Your task to perform on an android device: open app "Microsoft Outlook" Image 0: 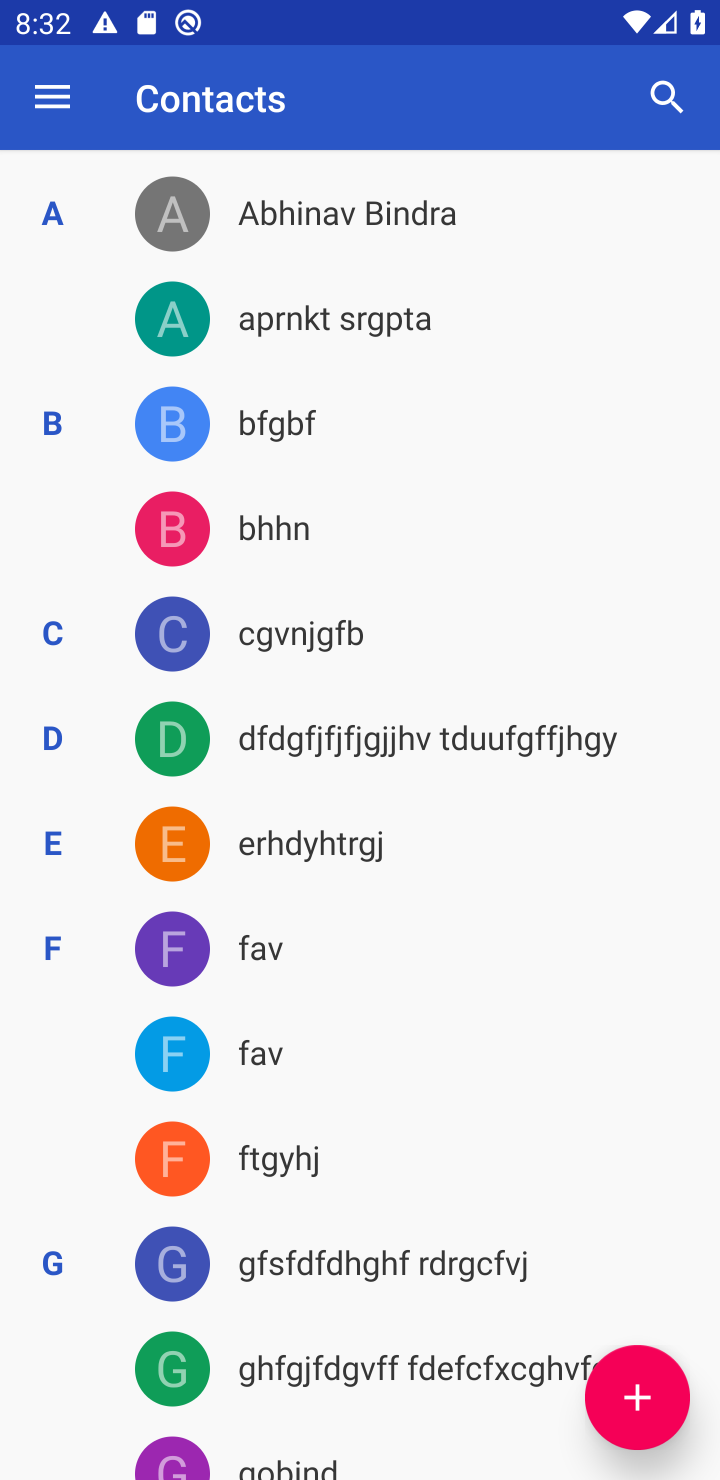
Step 0: press home button
Your task to perform on an android device: open app "Microsoft Outlook" Image 1: 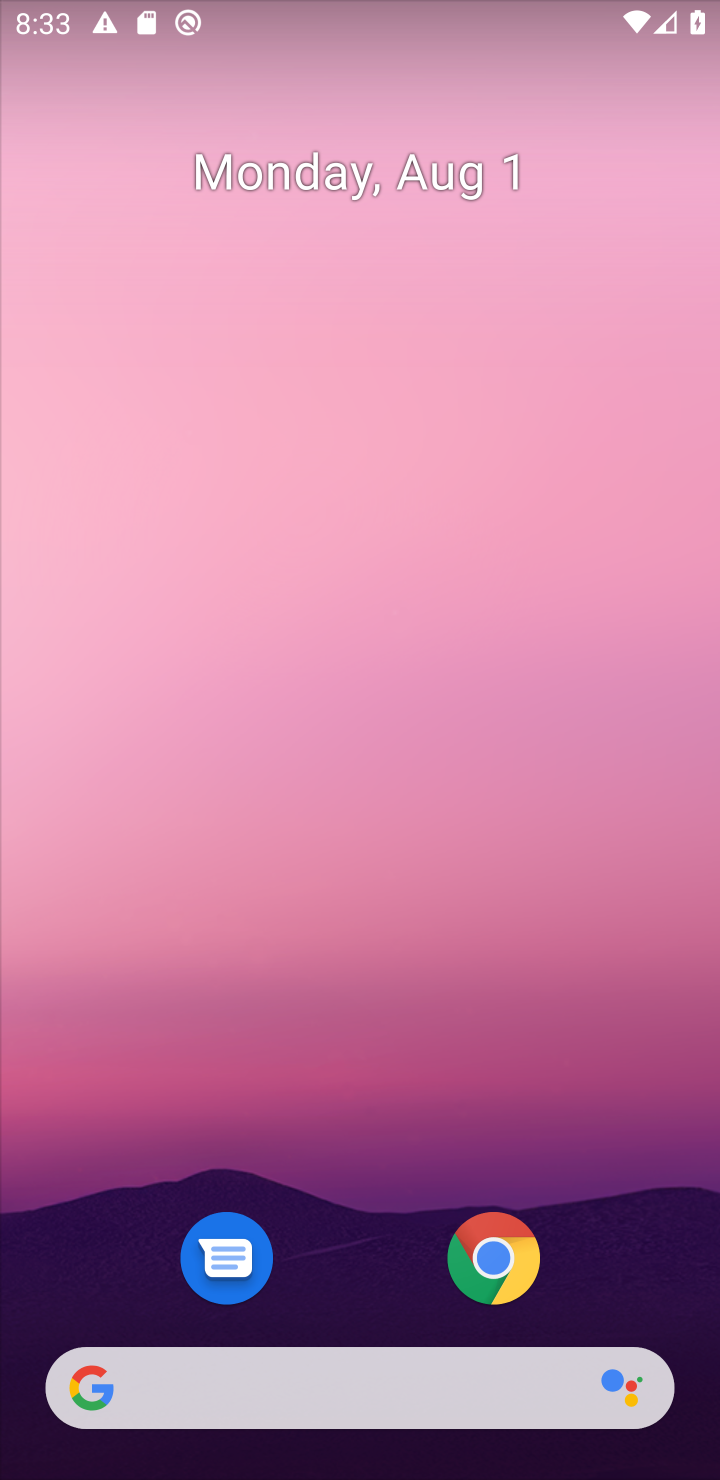
Step 1: drag from (338, 1245) to (483, 72)
Your task to perform on an android device: open app "Microsoft Outlook" Image 2: 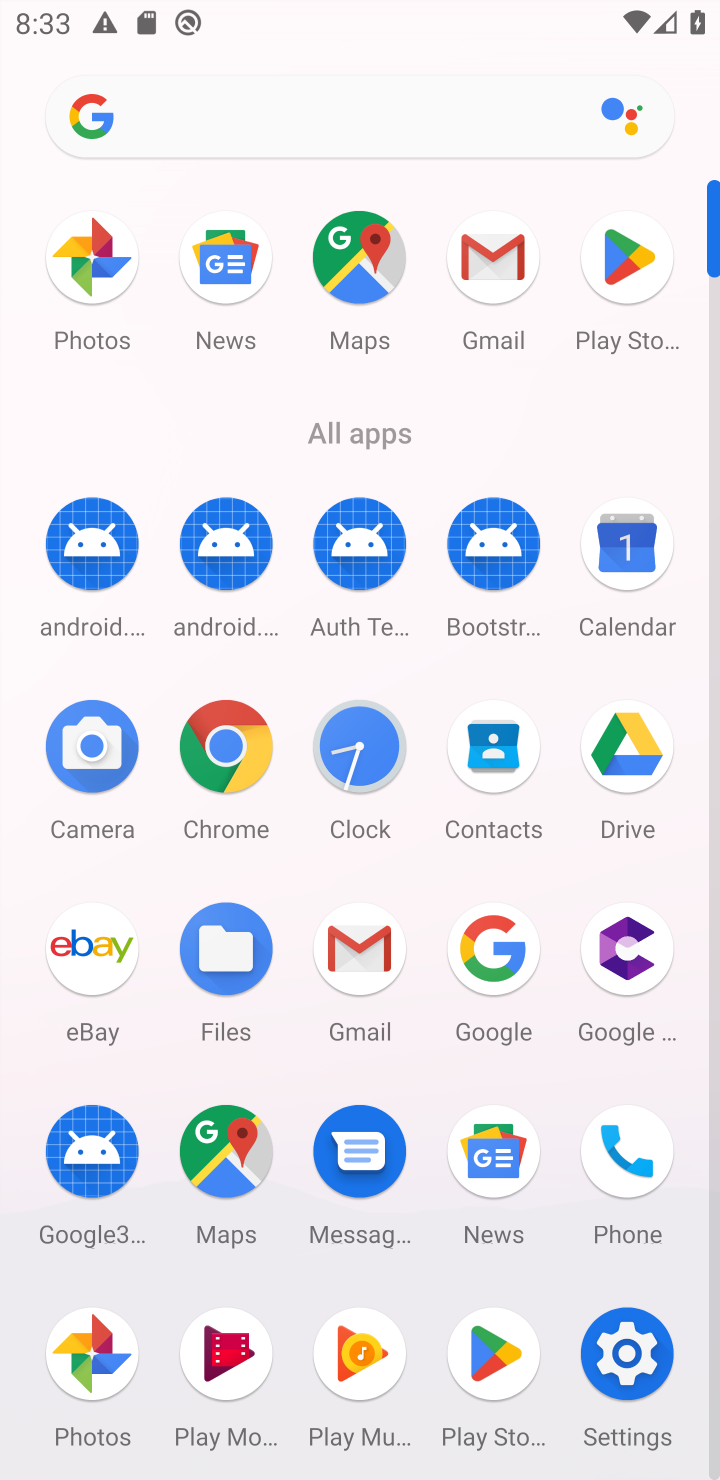
Step 2: click (495, 1357)
Your task to perform on an android device: open app "Microsoft Outlook" Image 3: 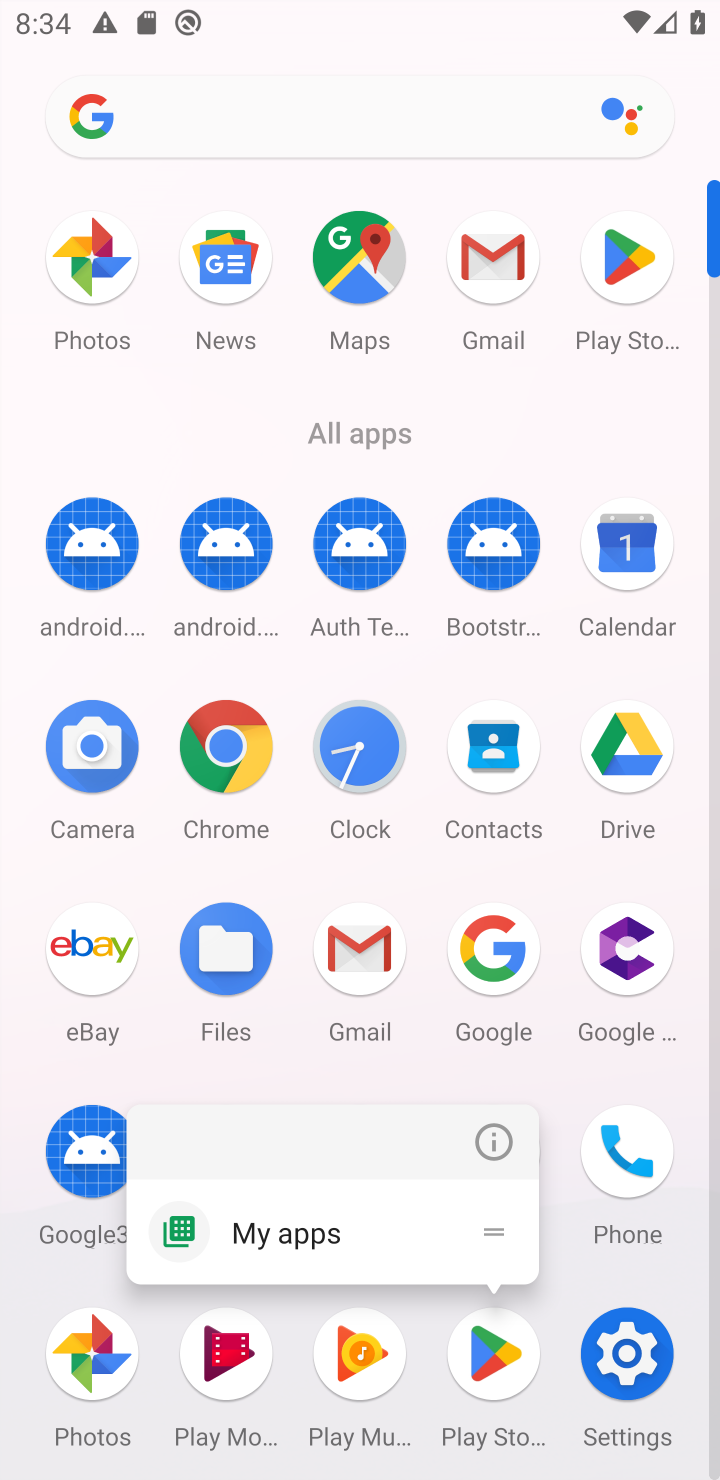
Step 3: click (641, 261)
Your task to perform on an android device: open app "Microsoft Outlook" Image 4: 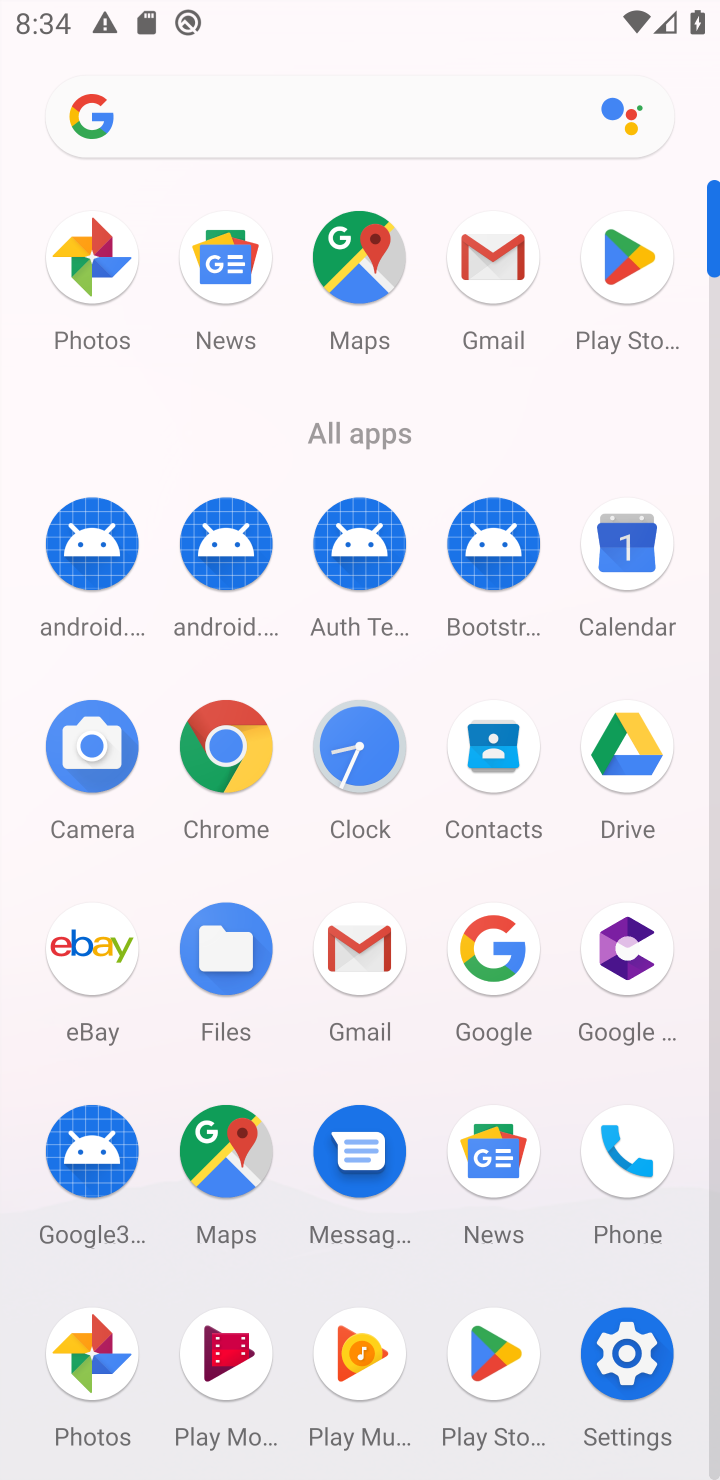
Step 4: click (641, 261)
Your task to perform on an android device: open app "Microsoft Outlook" Image 5: 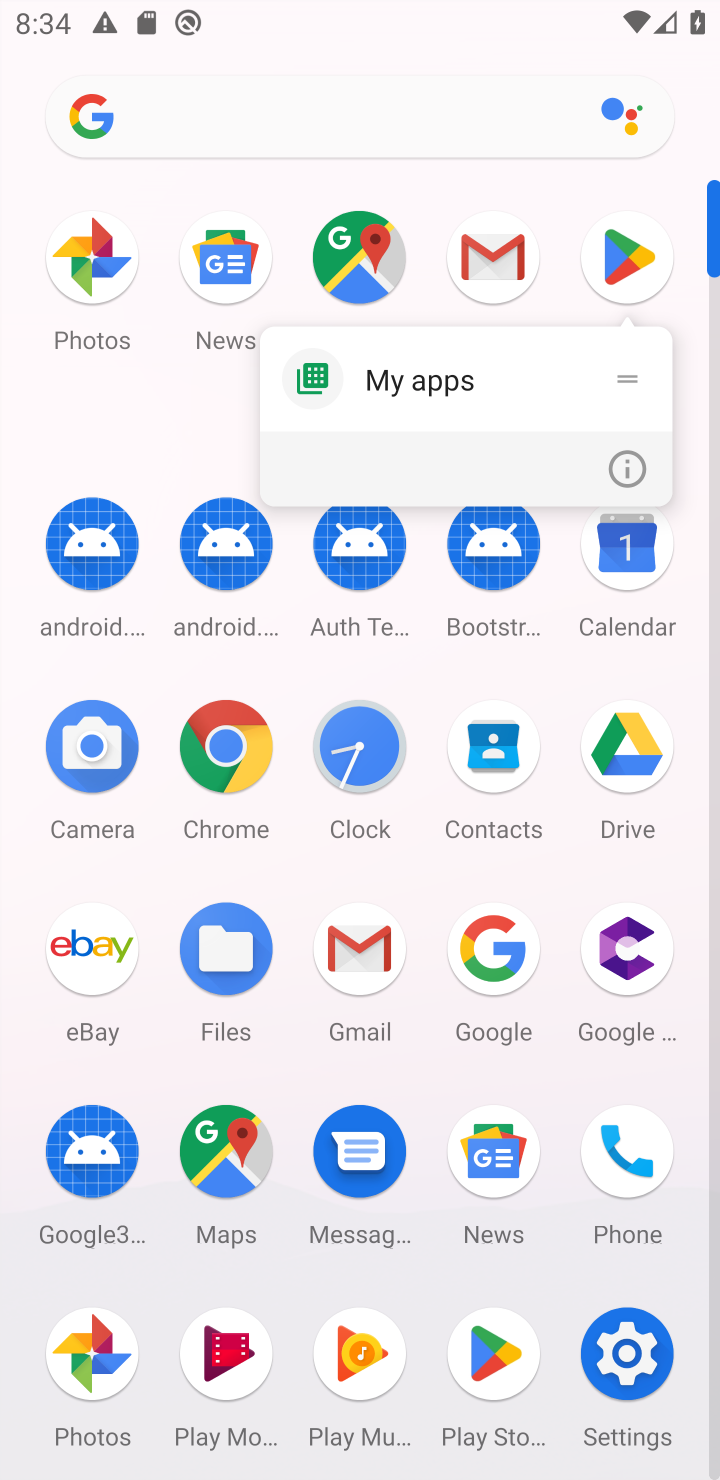
Step 5: click (631, 244)
Your task to perform on an android device: open app "Microsoft Outlook" Image 6: 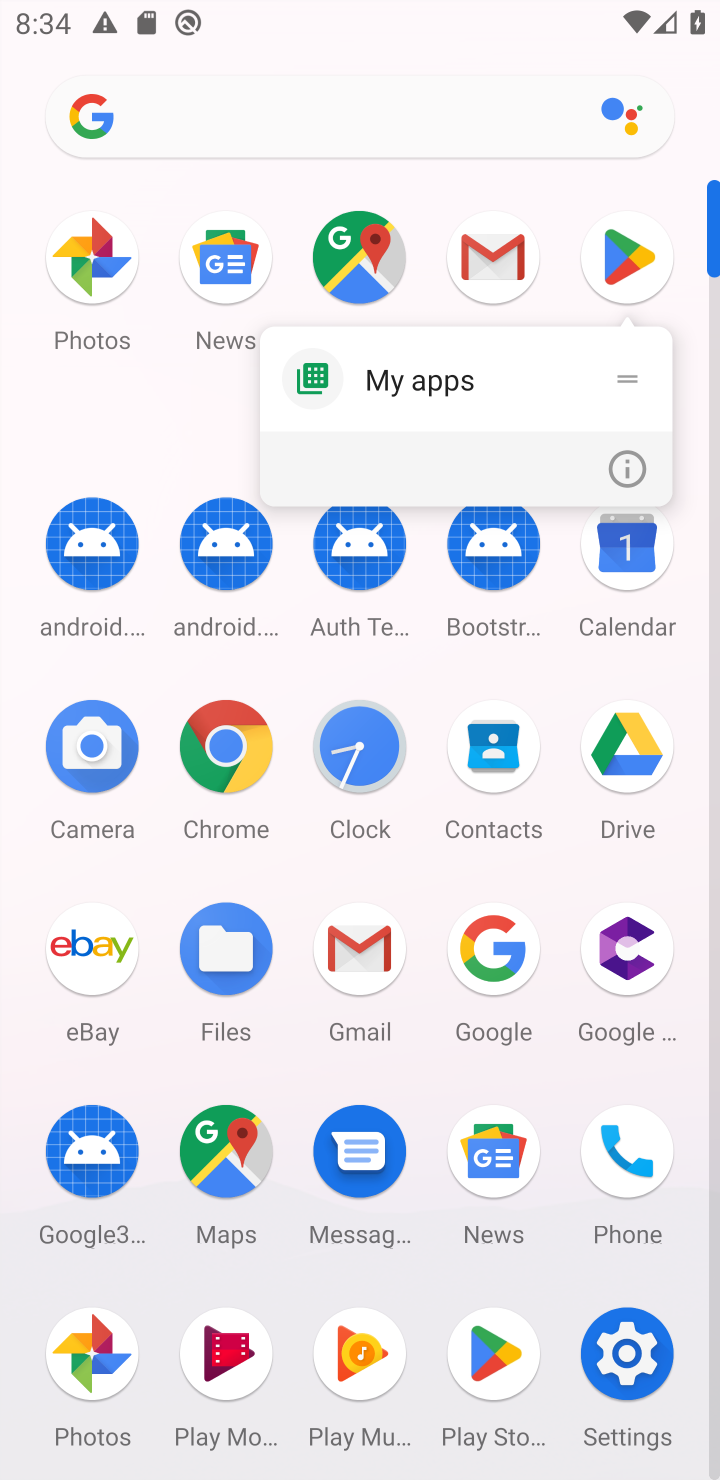
Step 6: click (631, 261)
Your task to perform on an android device: open app "Microsoft Outlook" Image 7: 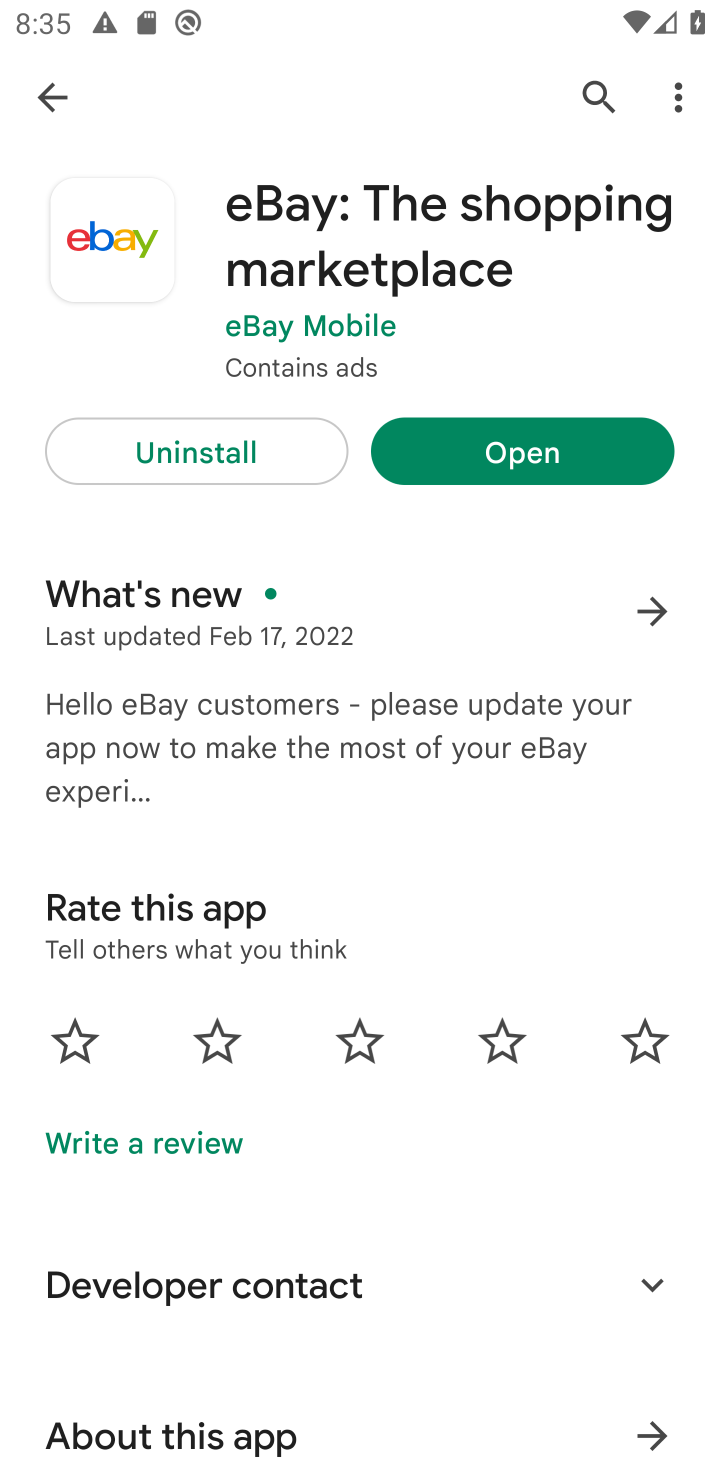
Step 7: click (34, 97)
Your task to perform on an android device: open app "Microsoft Outlook" Image 8: 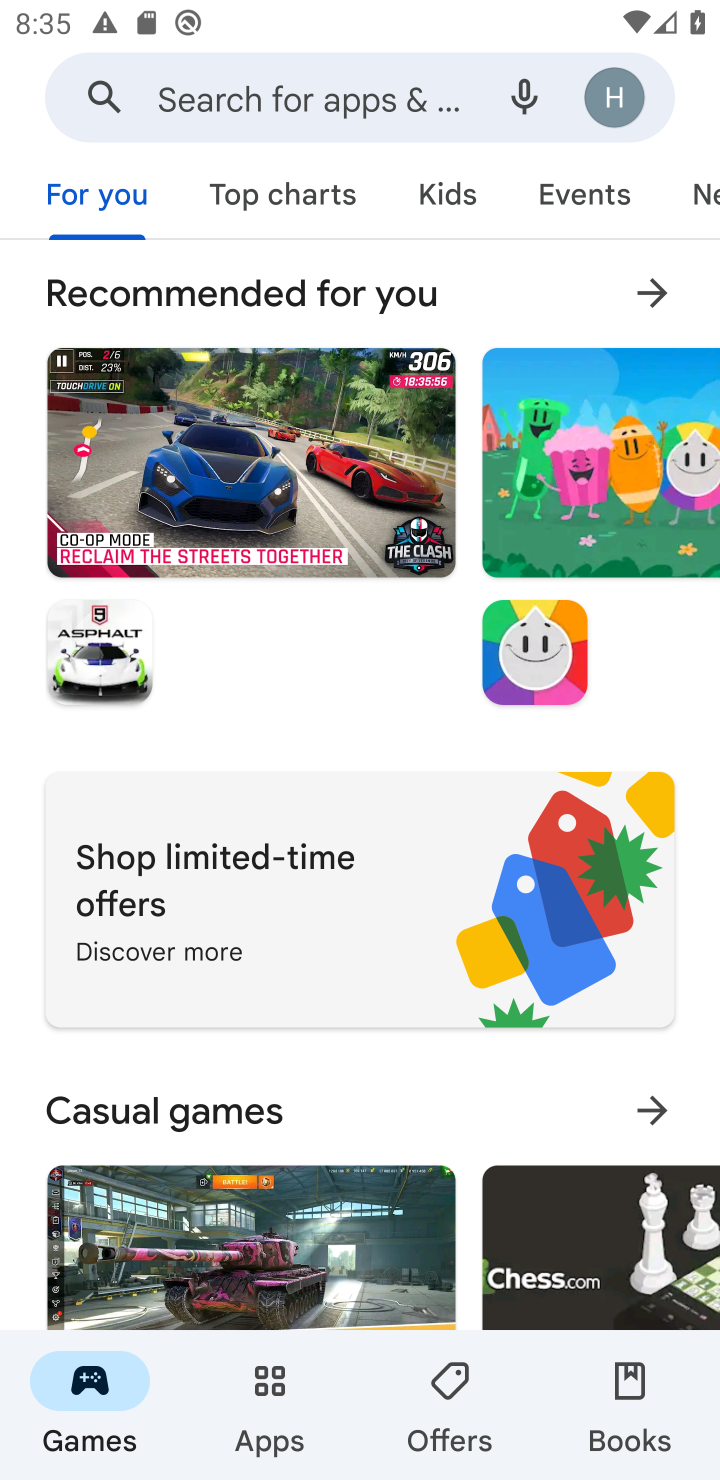
Step 8: click (245, 98)
Your task to perform on an android device: open app "Microsoft Outlook" Image 9: 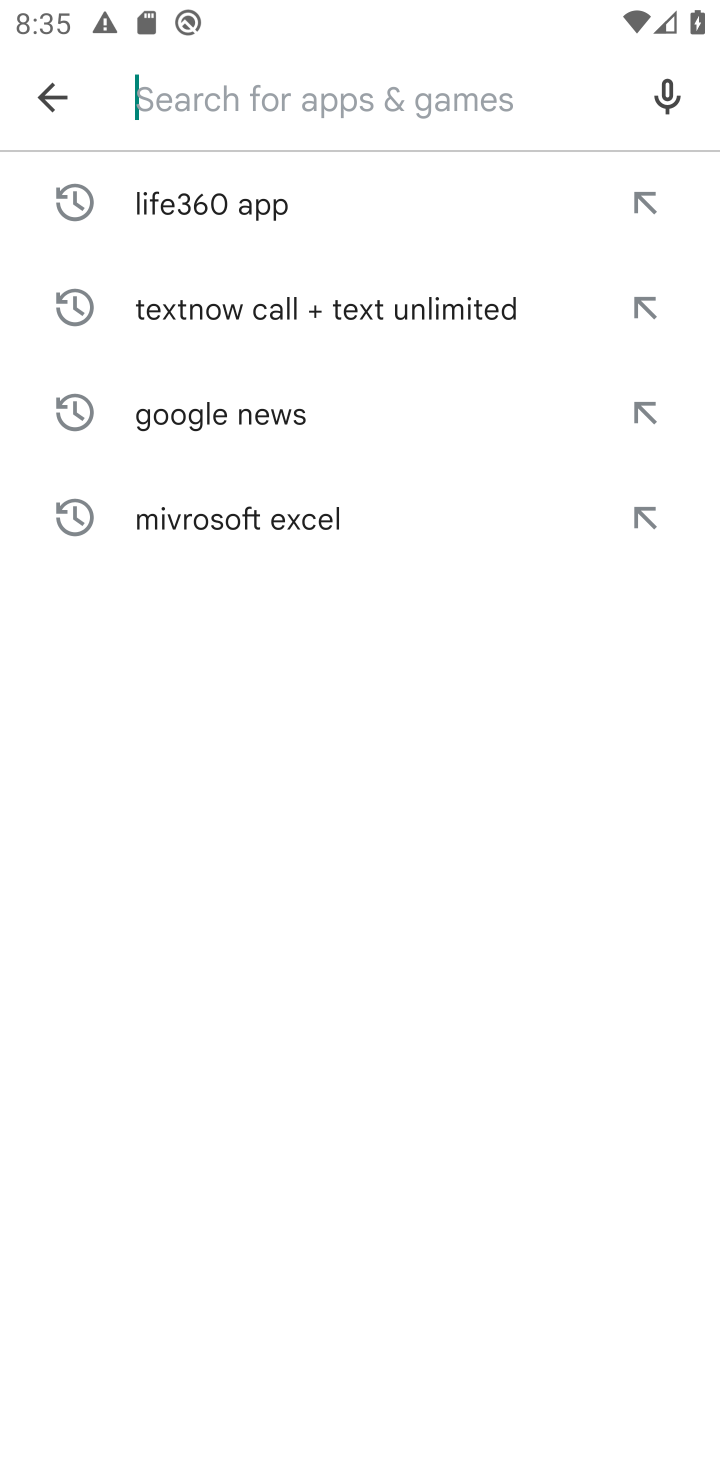
Step 9: click (245, 98)
Your task to perform on an android device: open app "Microsoft Outlook" Image 10: 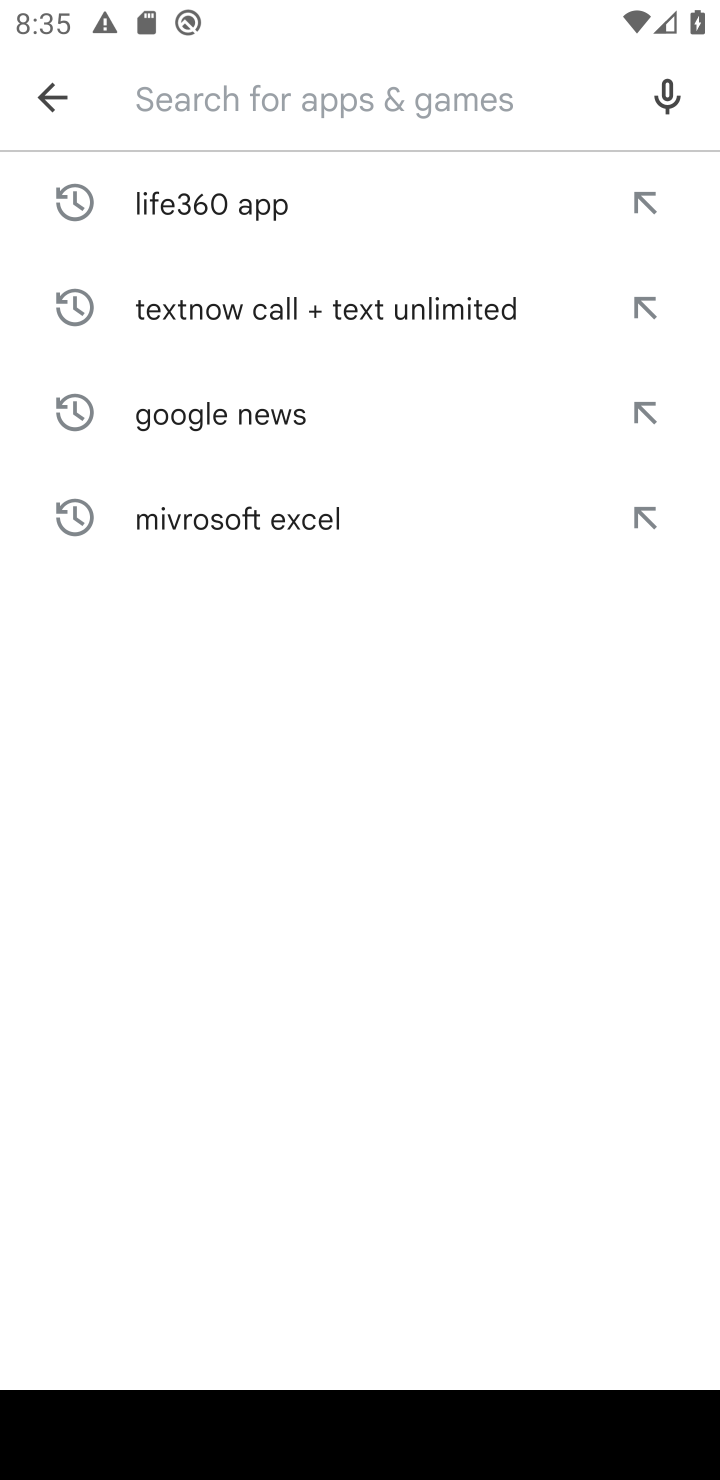
Step 10: type ""Microsoft Outlook""
Your task to perform on an android device: open app "Microsoft Outlook" Image 11: 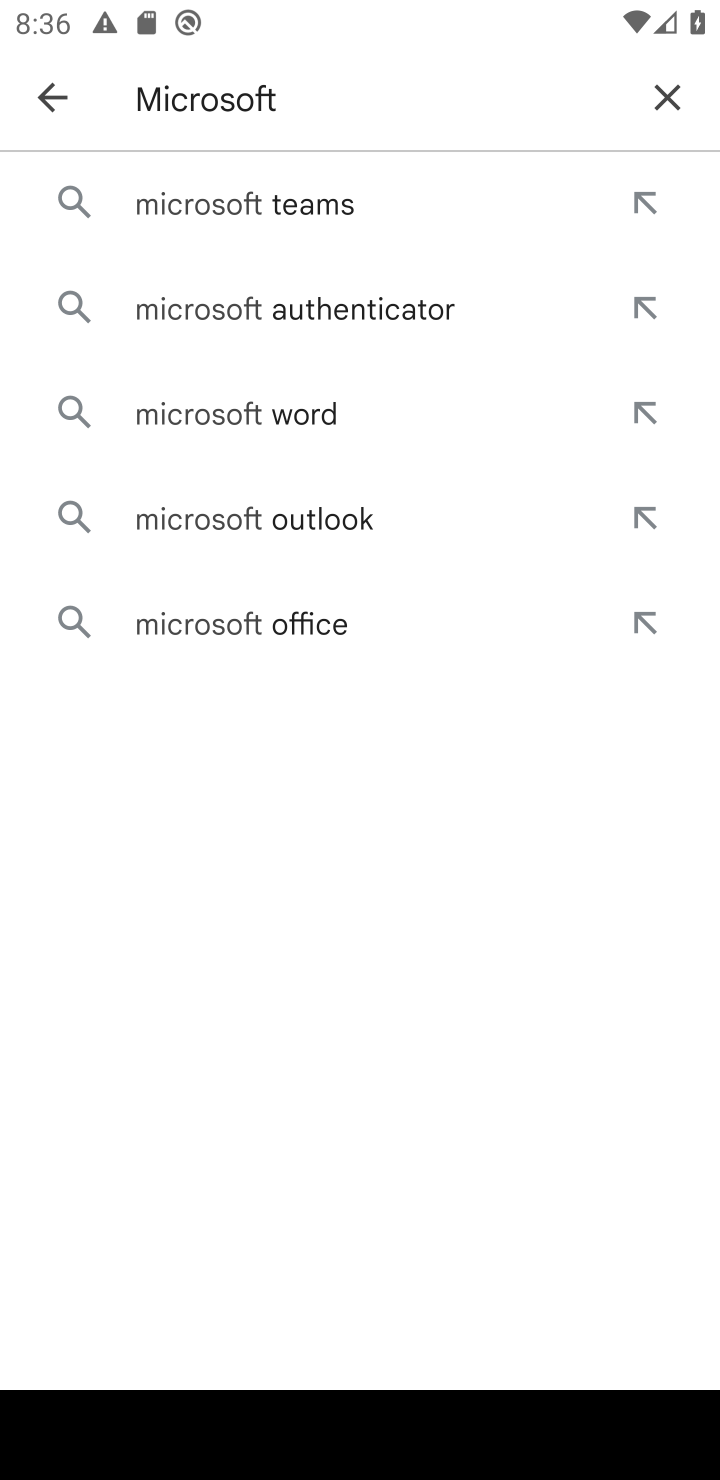
Step 11: click (209, 198)
Your task to perform on an android device: open app "Microsoft Outlook" Image 12: 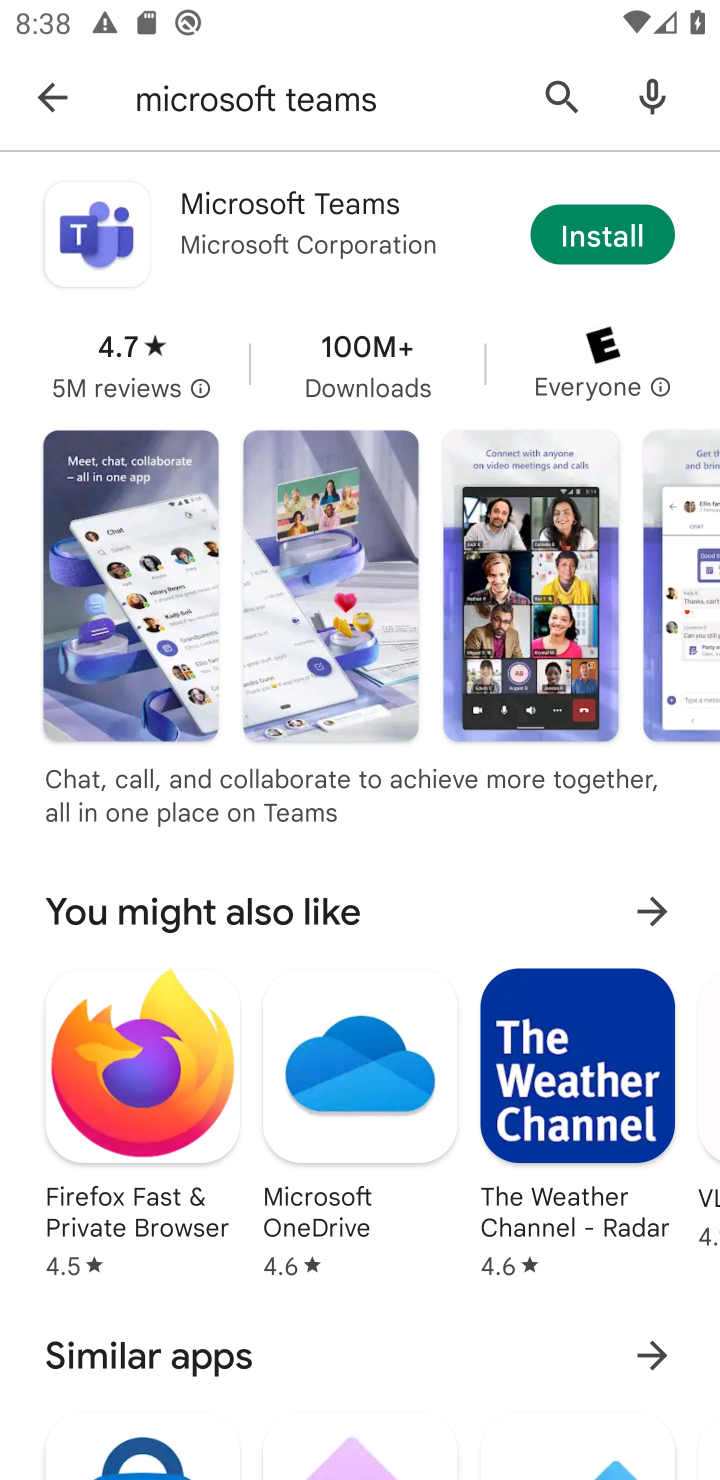
Step 12: task complete